Your task to perform on an android device: change the clock display to analog Image 0: 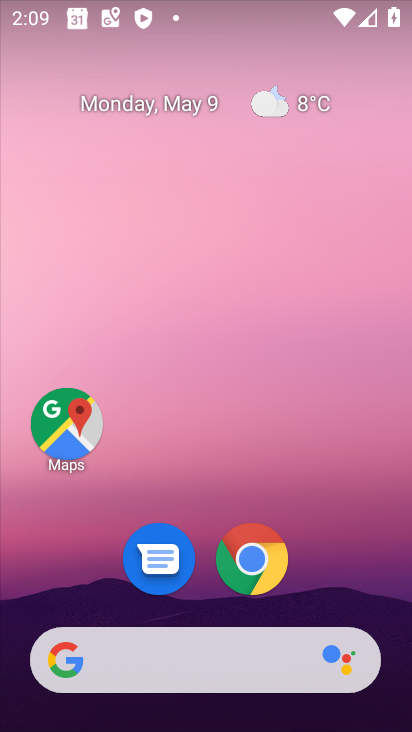
Step 0: drag from (326, 498) to (238, 39)
Your task to perform on an android device: change the clock display to analog Image 1: 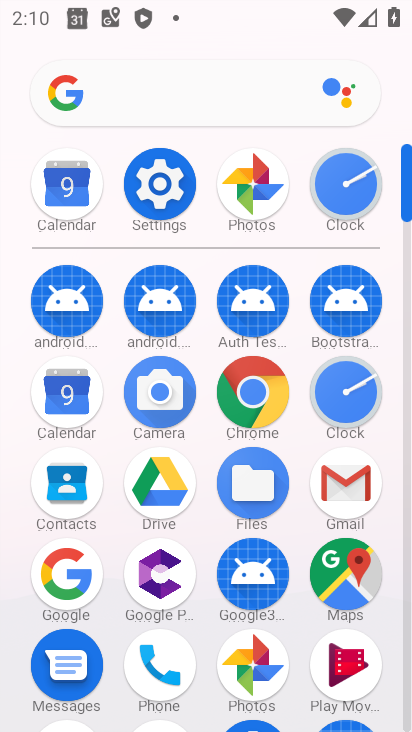
Step 1: click (340, 177)
Your task to perform on an android device: change the clock display to analog Image 2: 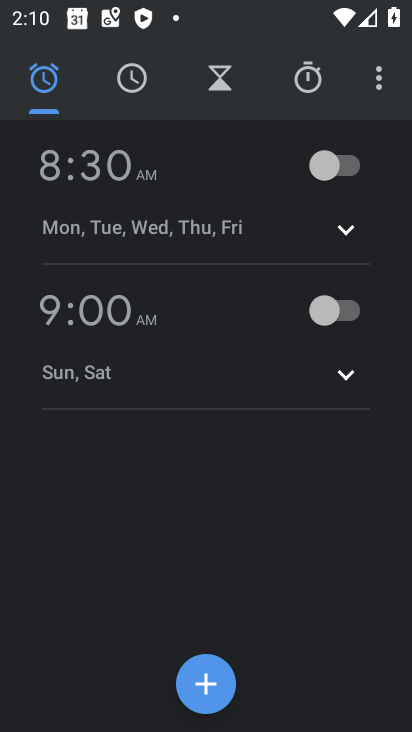
Step 2: click (379, 74)
Your task to perform on an android device: change the clock display to analog Image 3: 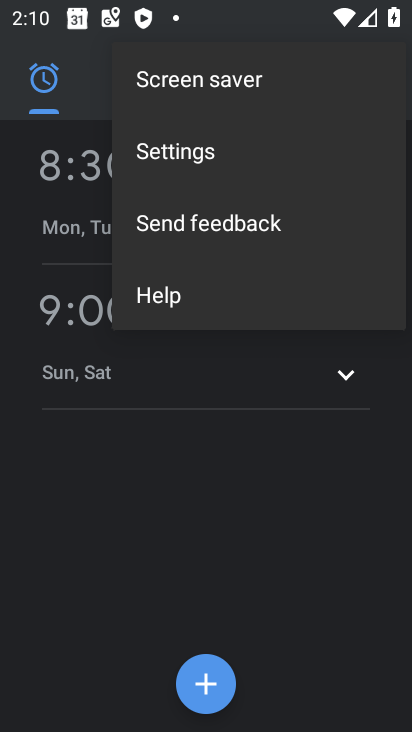
Step 3: click (193, 158)
Your task to perform on an android device: change the clock display to analog Image 4: 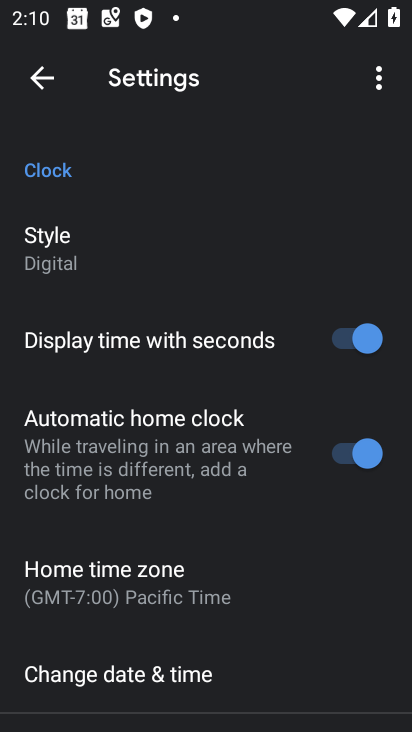
Step 4: click (47, 242)
Your task to perform on an android device: change the clock display to analog Image 5: 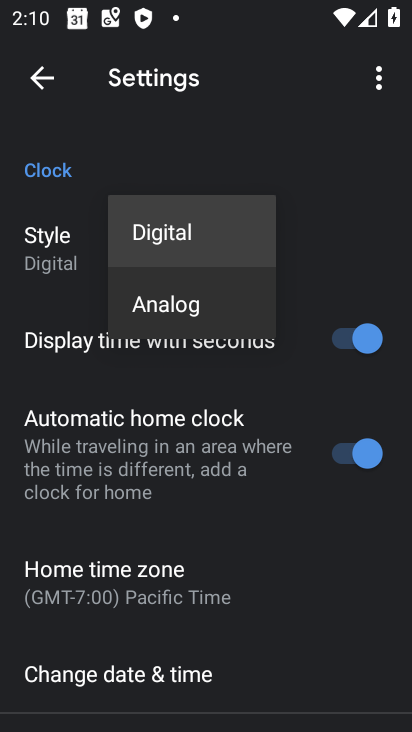
Step 5: click (147, 302)
Your task to perform on an android device: change the clock display to analog Image 6: 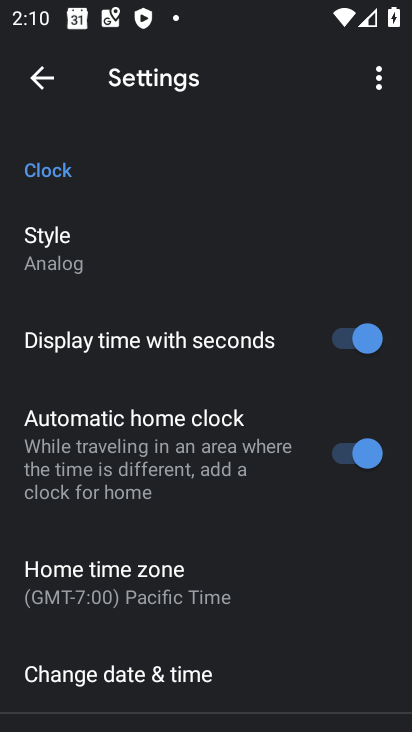
Step 6: task complete